Your task to perform on an android device: Go to Reddit.com Image 0: 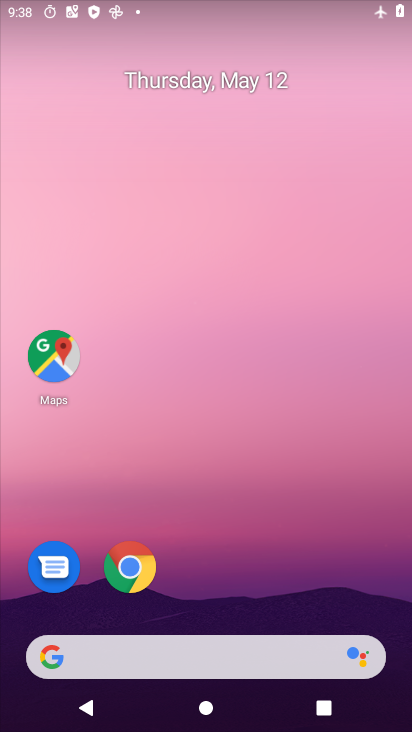
Step 0: click (131, 570)
Your task to perform on an android device: Go to Reddit.com Image 1: 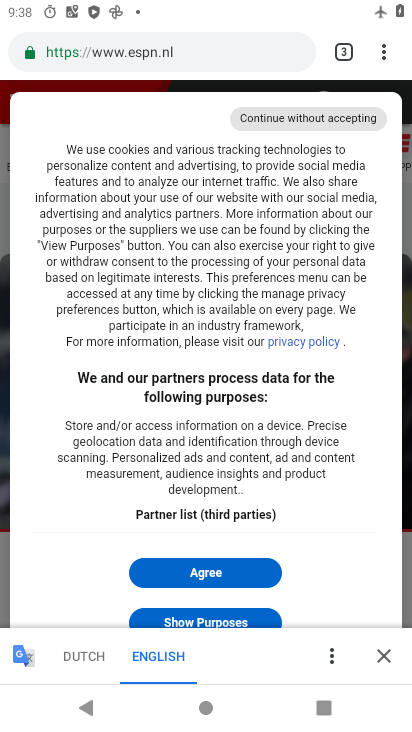
Step 1: click (278, 60)
Your task to perform on an android device: Go to Reddit.com Image 2: 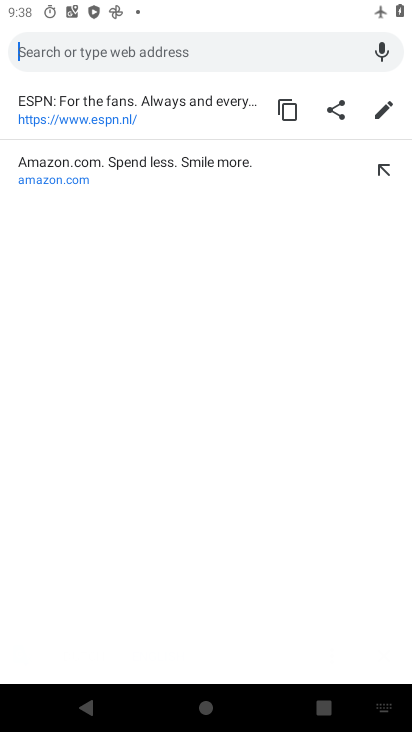
Step 2: type "reddit"
Your task to perform on an android device: Go to Reddit.com Image 3: 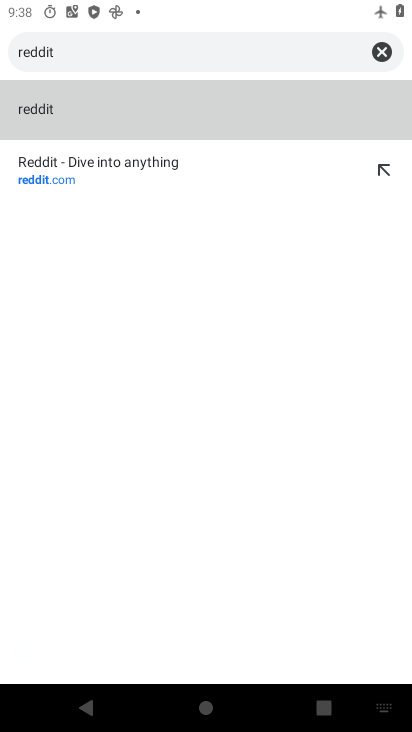
Step 3: click (149, 170)
Your task to perform on an android device: Go to Reddit.com Image 4: 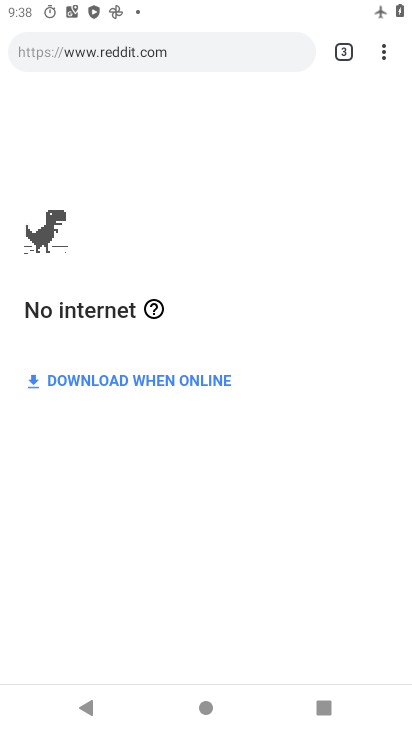
Step 4: task complete